Your task to perform on an android device: delete browsing data in the chrome app Image 0: 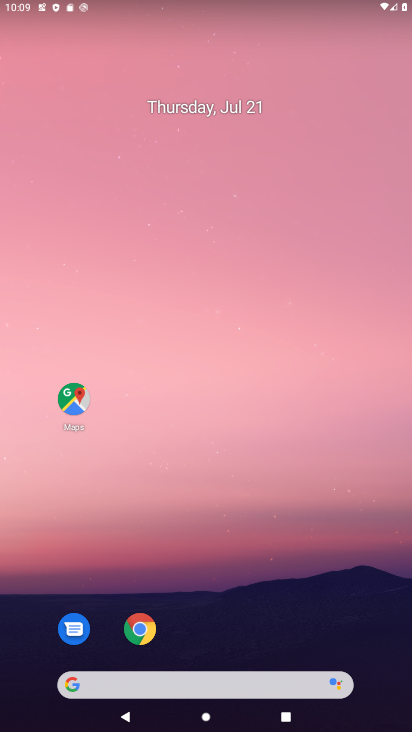
Step 0: drag from (219, 619) to (167, 132)
Your task to perform on an android device: delete browsing data in the chrome app Image 1: 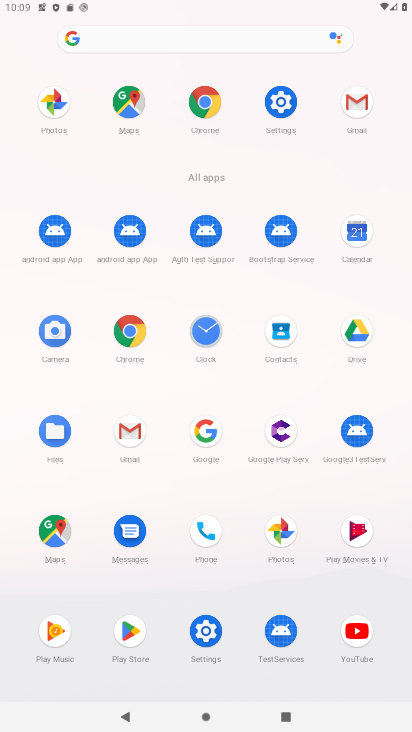
Step 1: click (129, 339)
Your task to perform on an android device: delete browsing data in the chrome app Image 2: 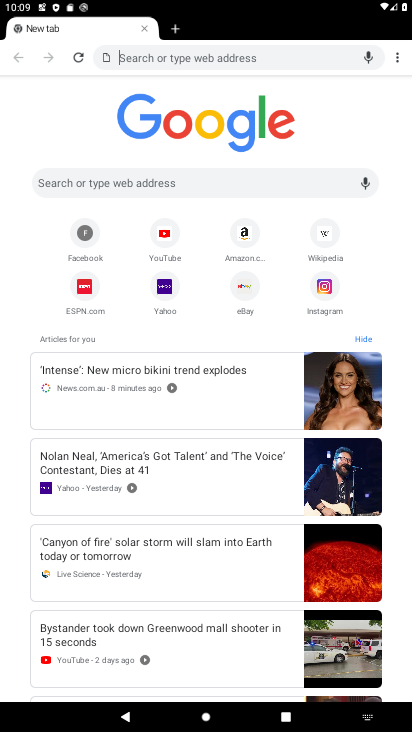
Step 2: drag from (392, 58) to (307, 260)
Your task to perform on an android device: delete browsing data in the chrome app Image 3: 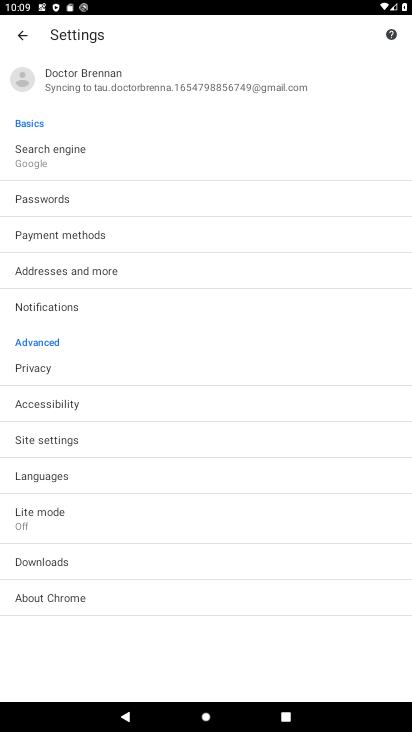
Step 3: click (39, 369)
Your task to perform on an android device: delete browsing data in the chrome app Image 4: 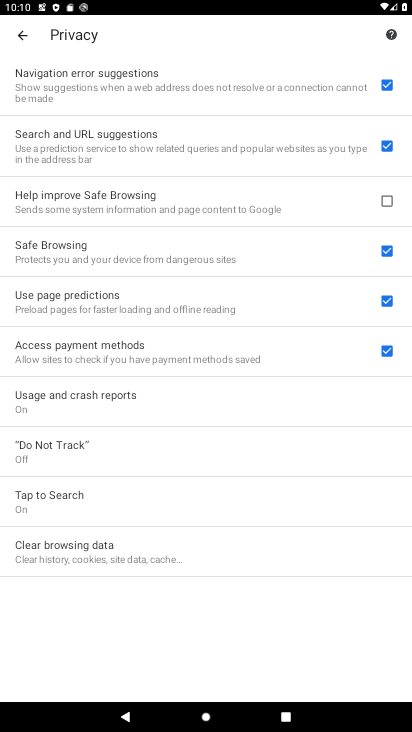
Step 4: click (108, 539)
Your task to perform on an android device: delete browsing data in the chrome app Image 5: 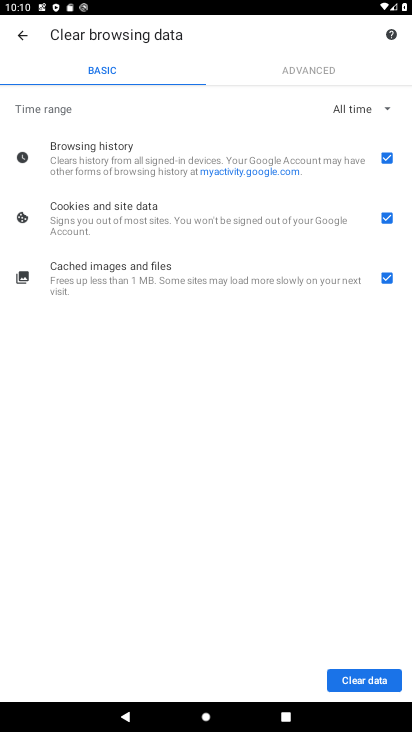
Step 5: click (364, 682)
Your task to perform on an android device: delete browsing data in the chrome app Image 6: 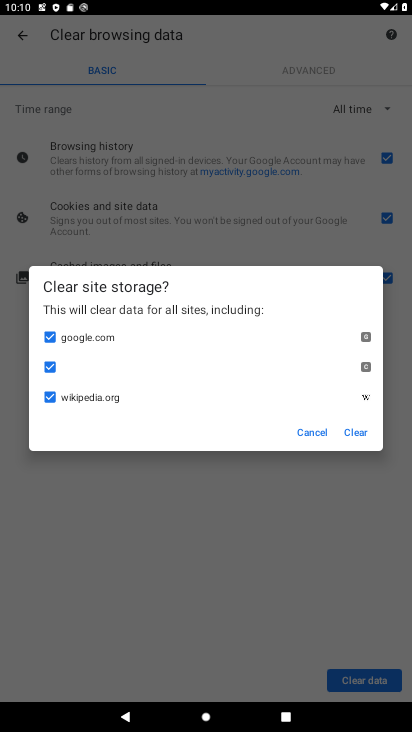
Step 6: click (355, 428)
Your task to perform on an android device: delete browsing data in the chrome app Image 7: 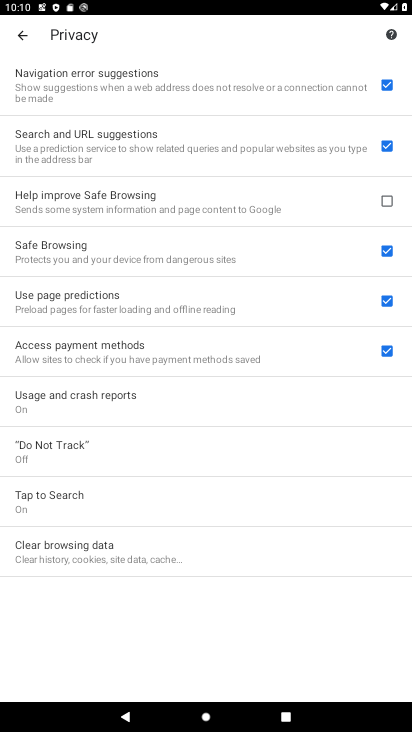
Step 7: task complete